Your task to perform on an android device: Go to Maps Image 0: 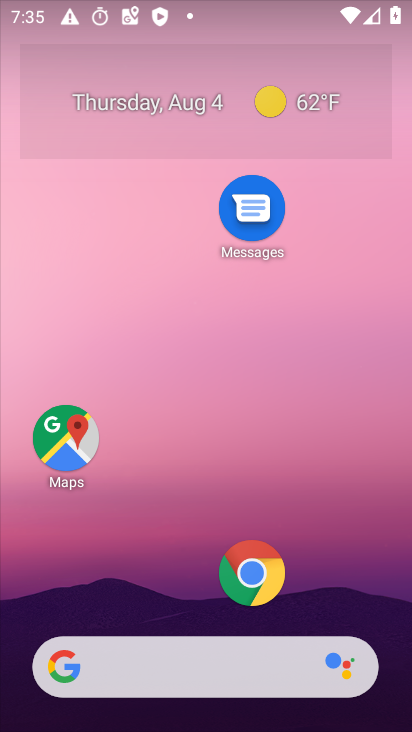
Step 0: press home button
Your task to perform on an android device: Go to Maps Image 1: 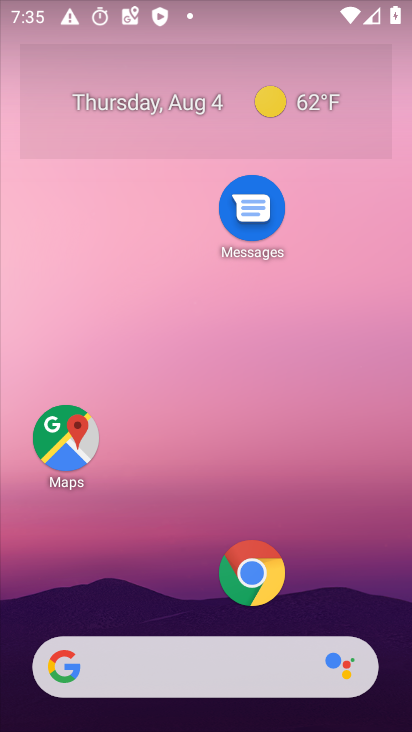
Step 1: click (67, 438)
Your task to perform on an android device: Go to Maps Image 2: 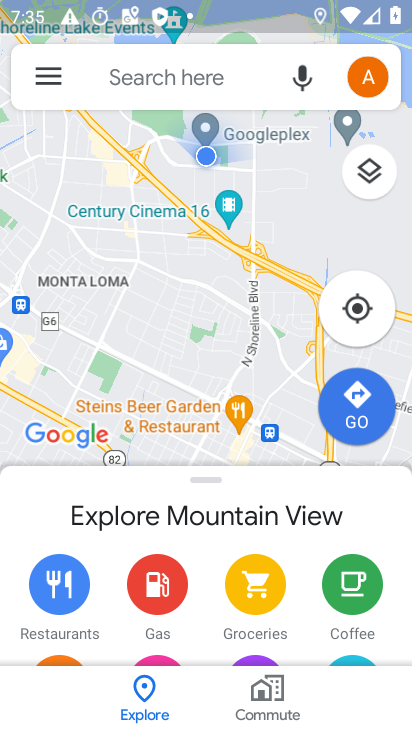
Step 2: task complete